Your task to perform on an android device: turn on priority inbox in the gmail app Image 0: 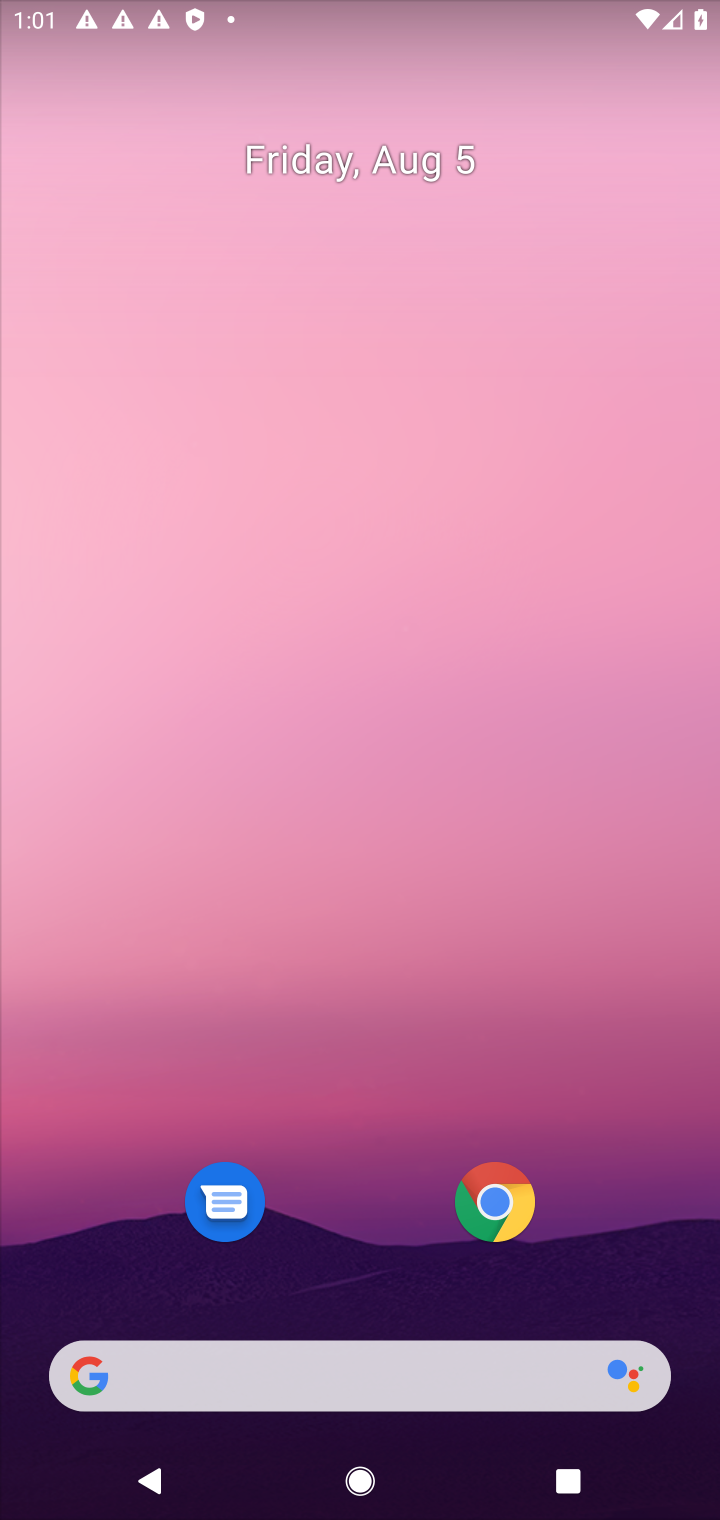
Step 0: drag from (308, 1125) to (406, 257)
Your task to perform on an android device: turn on priority inbox in the gmail app Image 1: 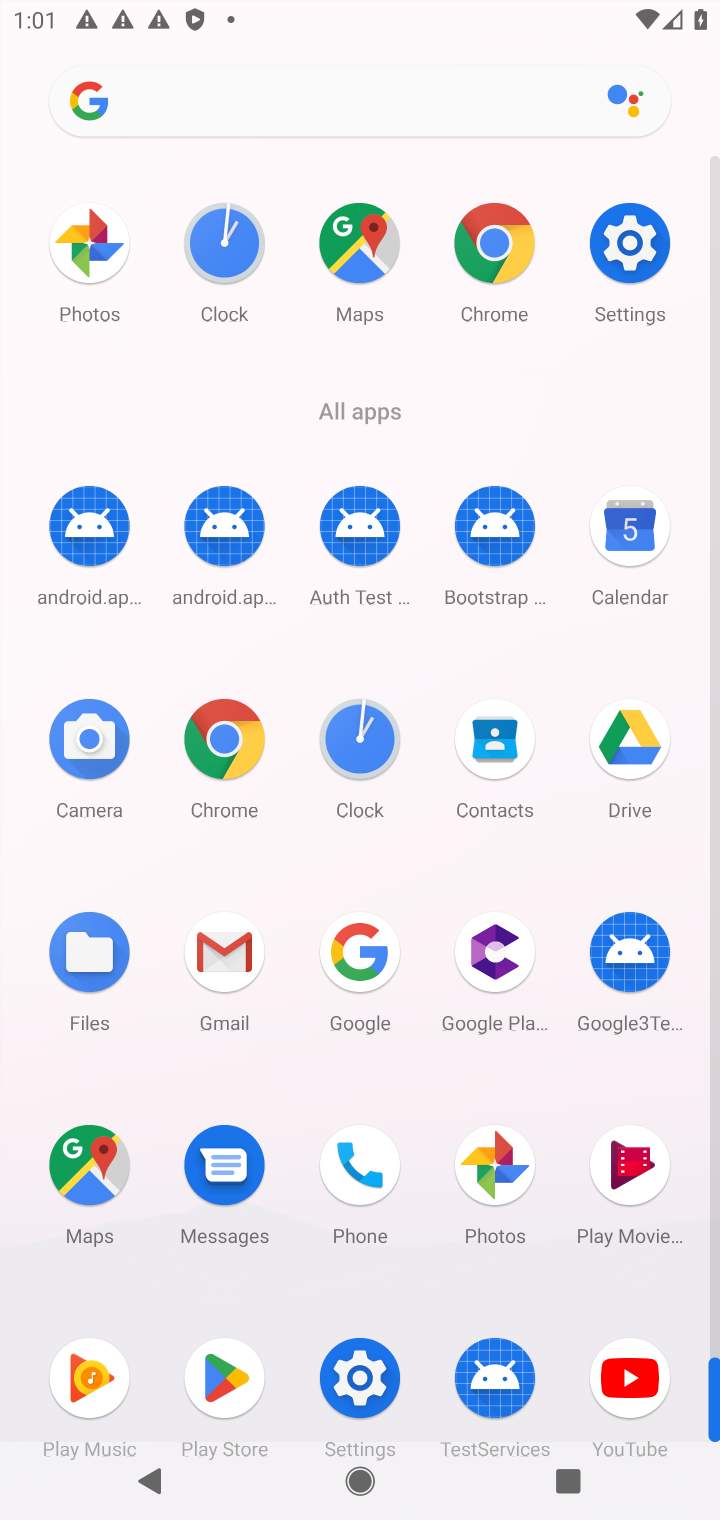
Step 1: click (234, 957)
Your task to perform on an android device: turn on priority inbox in the gmail app Image 2: 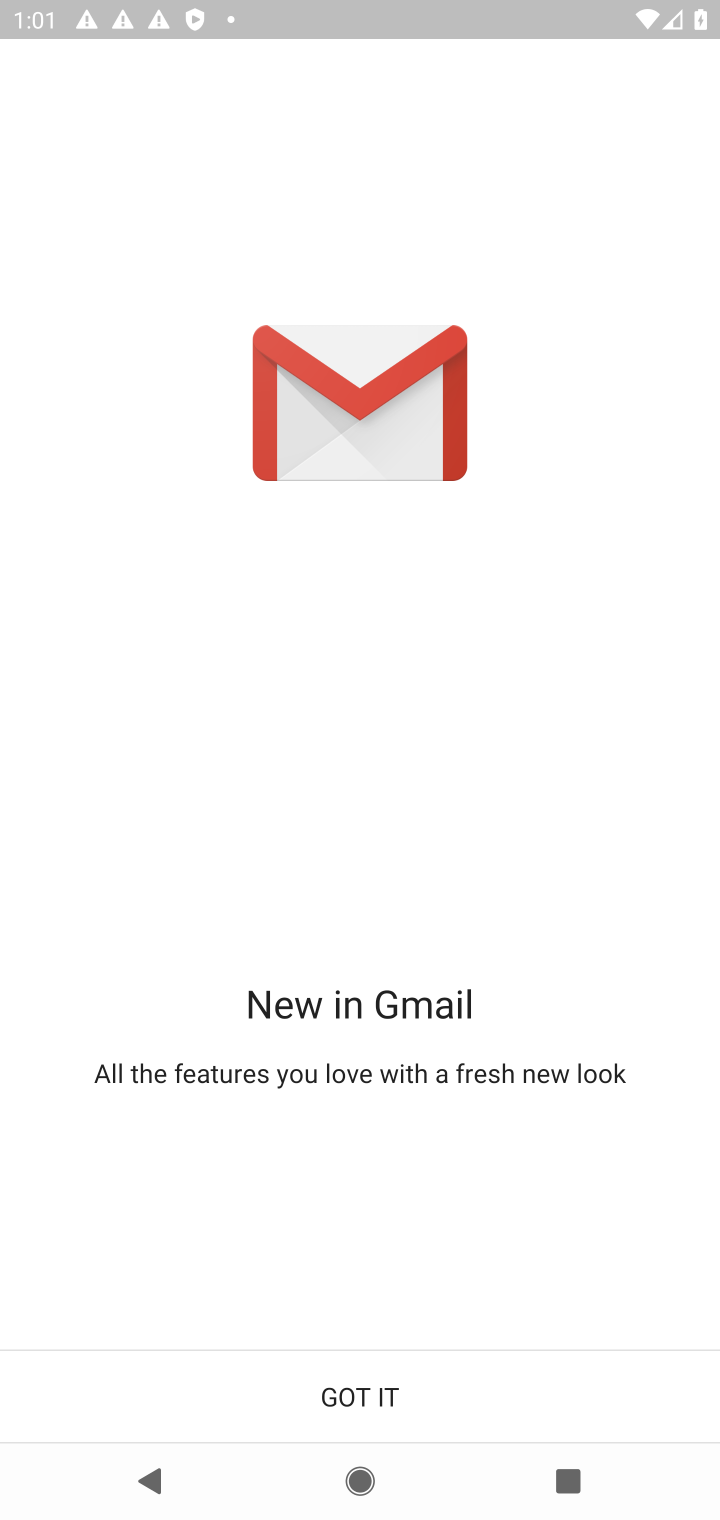
Step 2: click (395, 1379)
Your task to perform on an android device: turn on priority inbox in the gmail app Image 3: 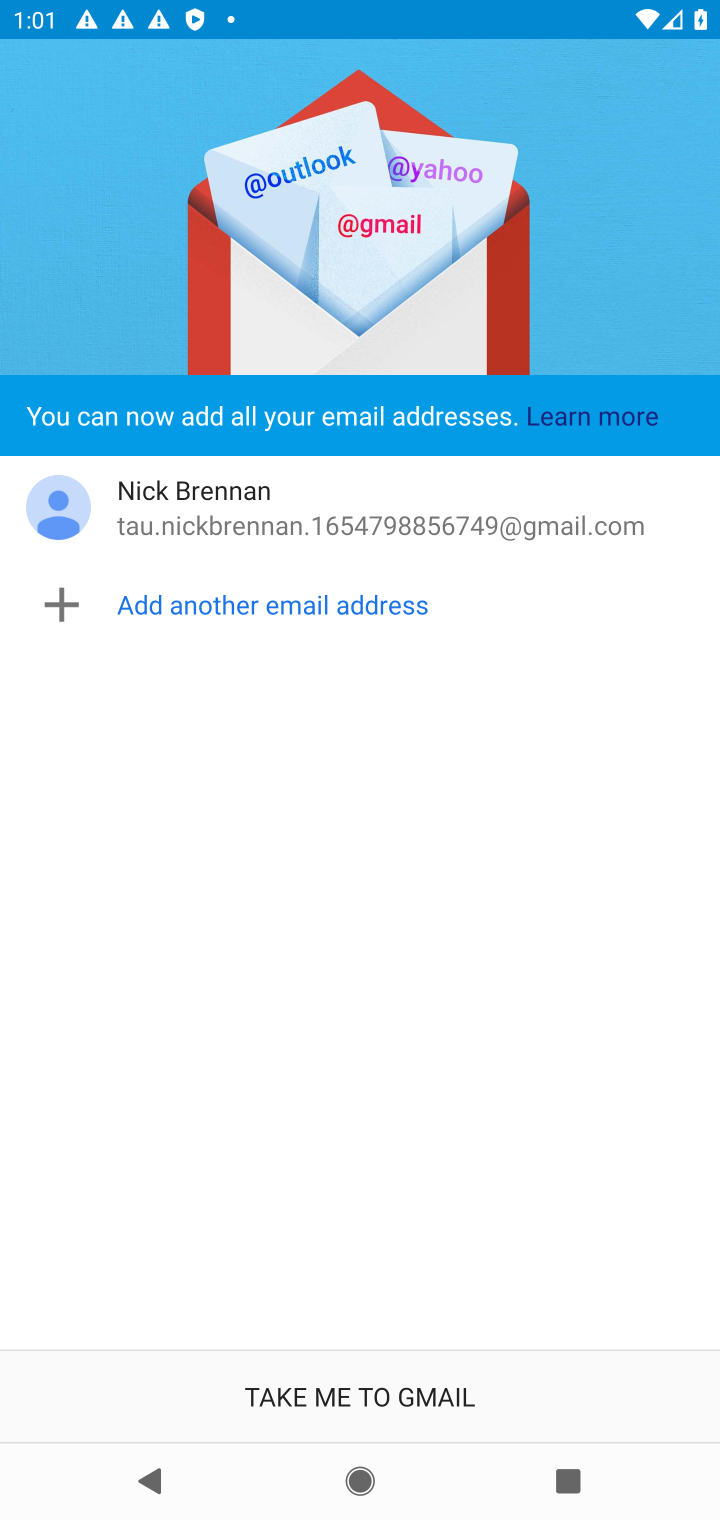
Step 3: click (392, 1383)
Your task to perform on an android device: turn on priority inbox in the gmail app Image 4: 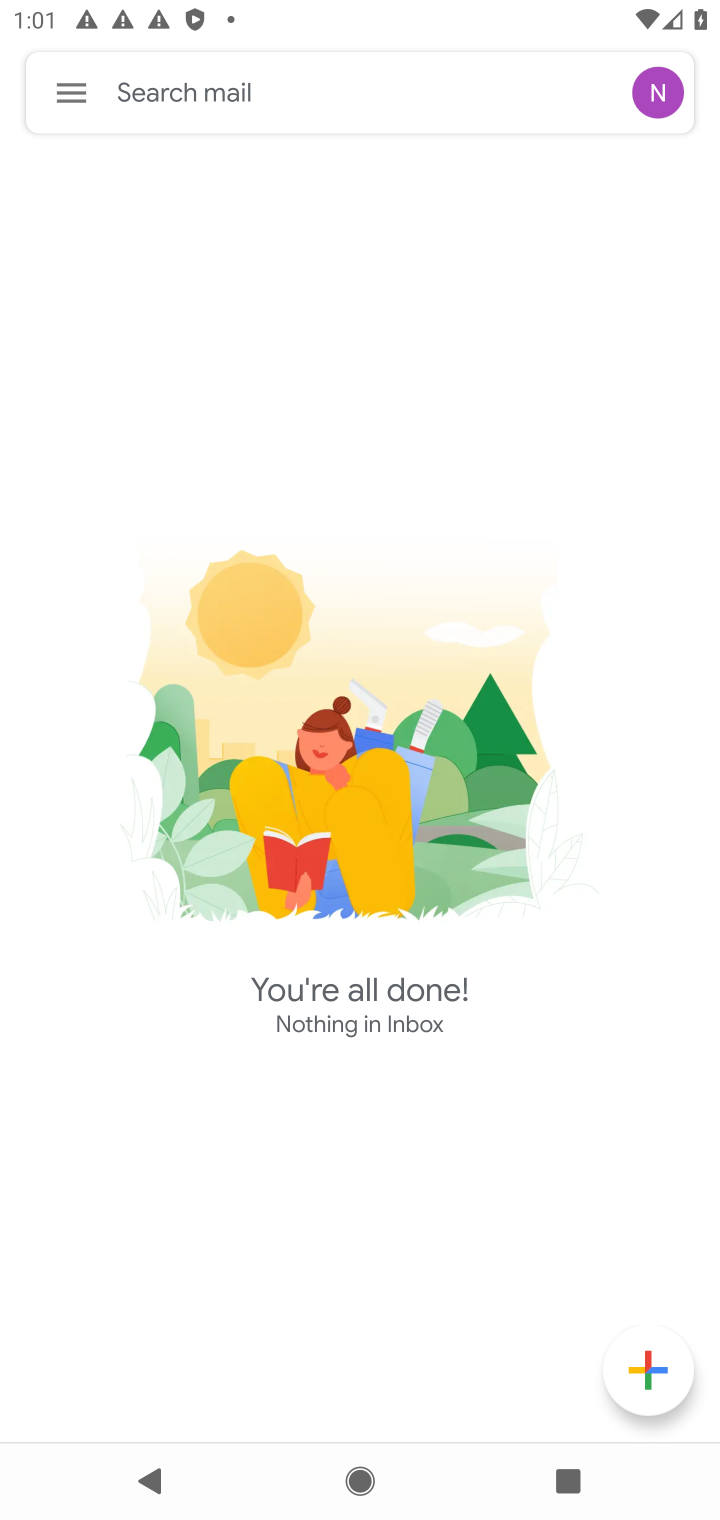
Step 4: click (80, 98)
Your task to perform on an android device: turn on priority inbox in the gmail app Image 5: 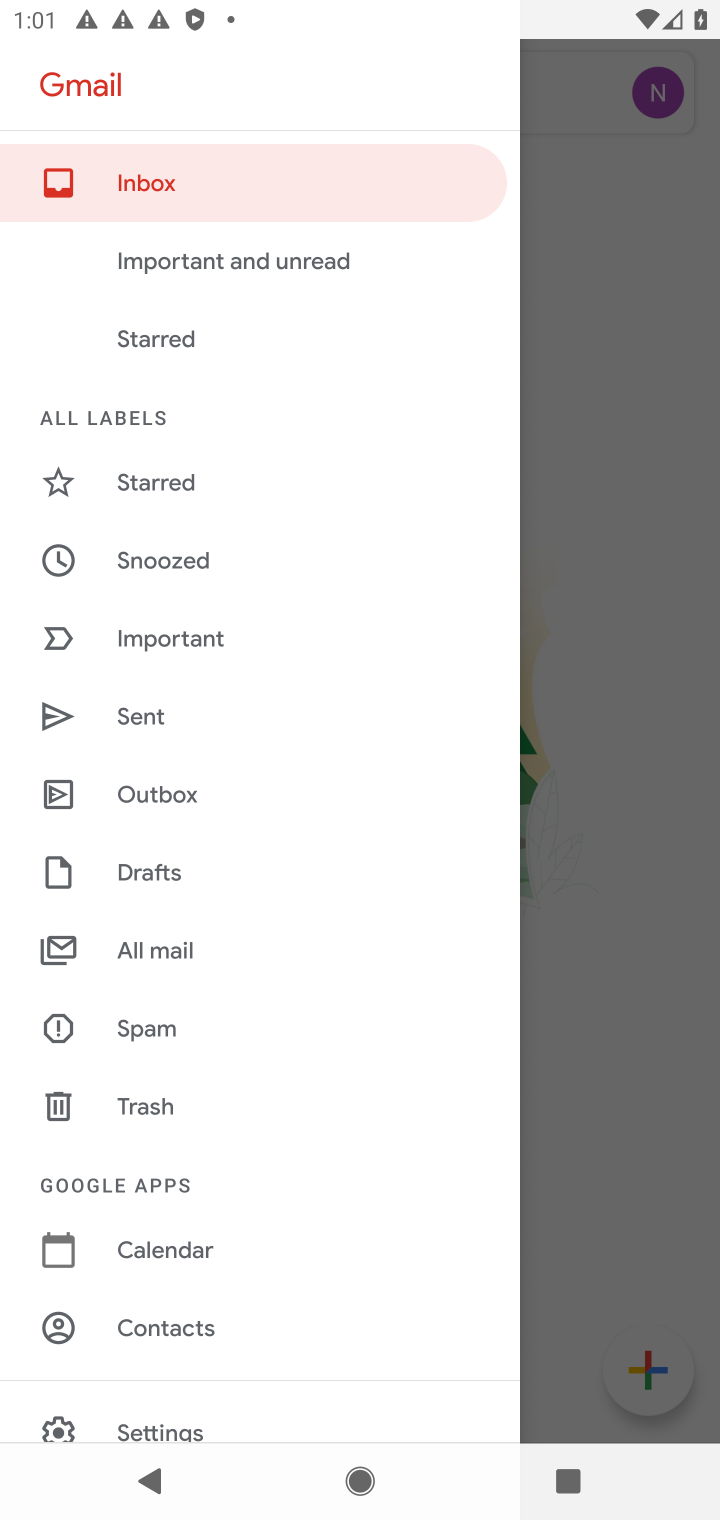
Step 5: click (163, 1419)
Your task to perform on an android device: turn on priority inbox in the gmail app Image 6: 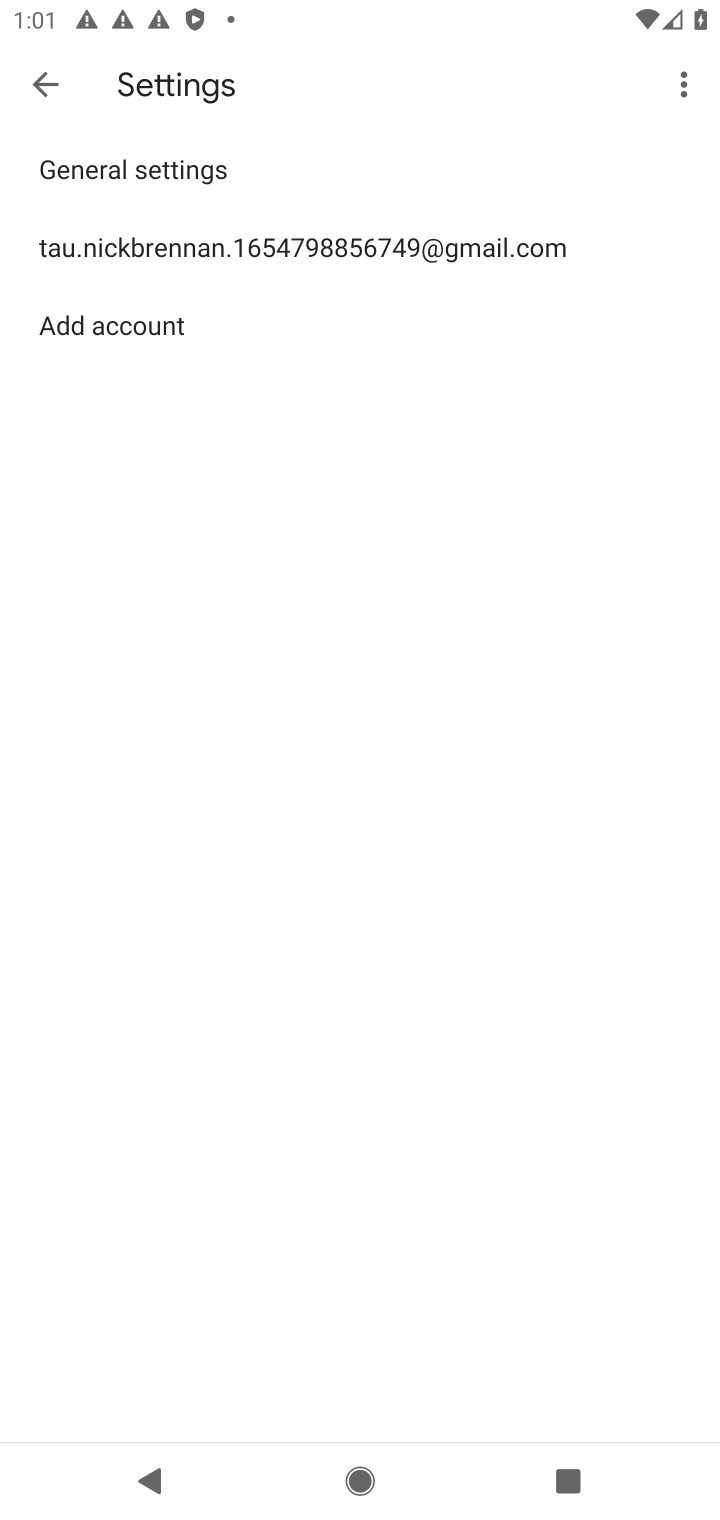
Step 6: click (404, 231)
Your task to perform on an android device: turn on priority inbox in the gmail app Image 7: 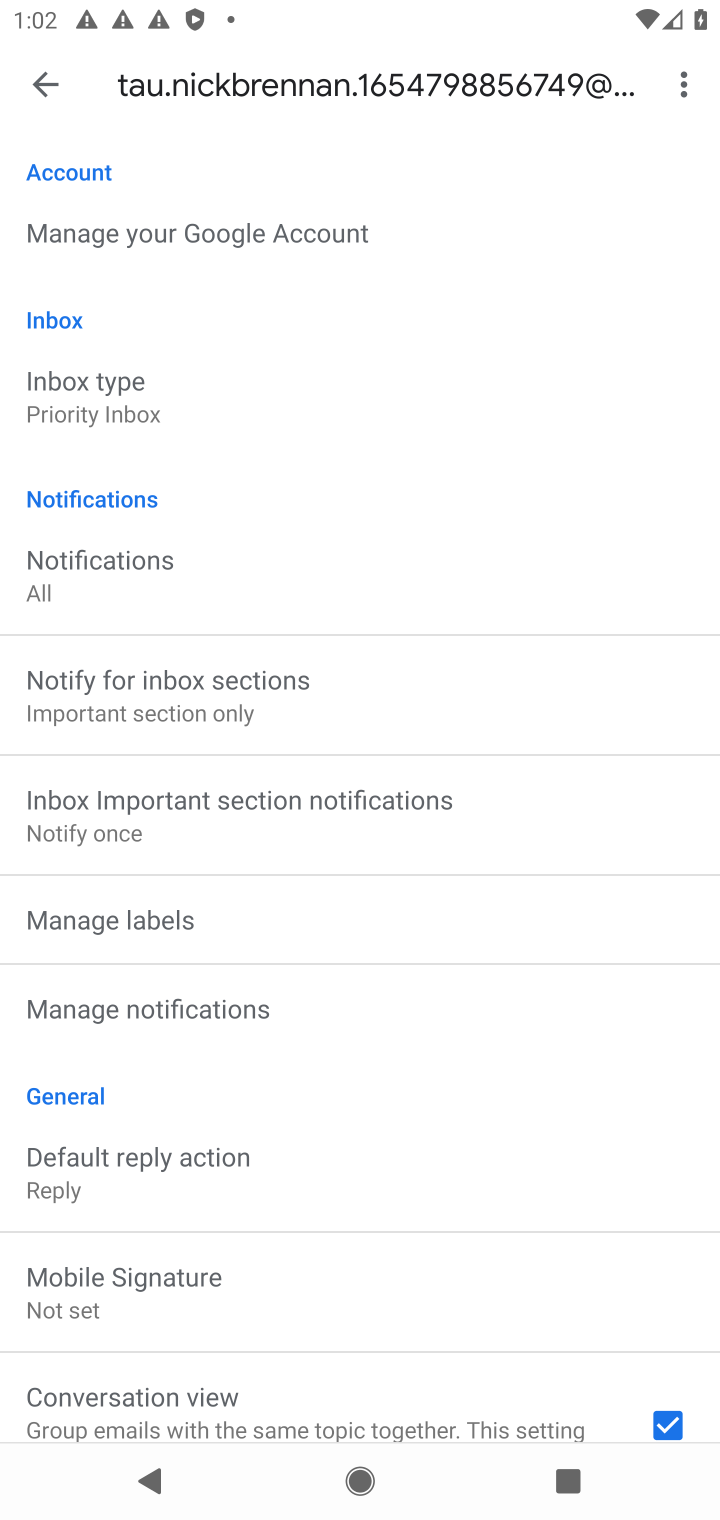
Step 7: click (140, 401)
Your task to perform on an android device: turn on priority inbox in the gmail app Image 8: 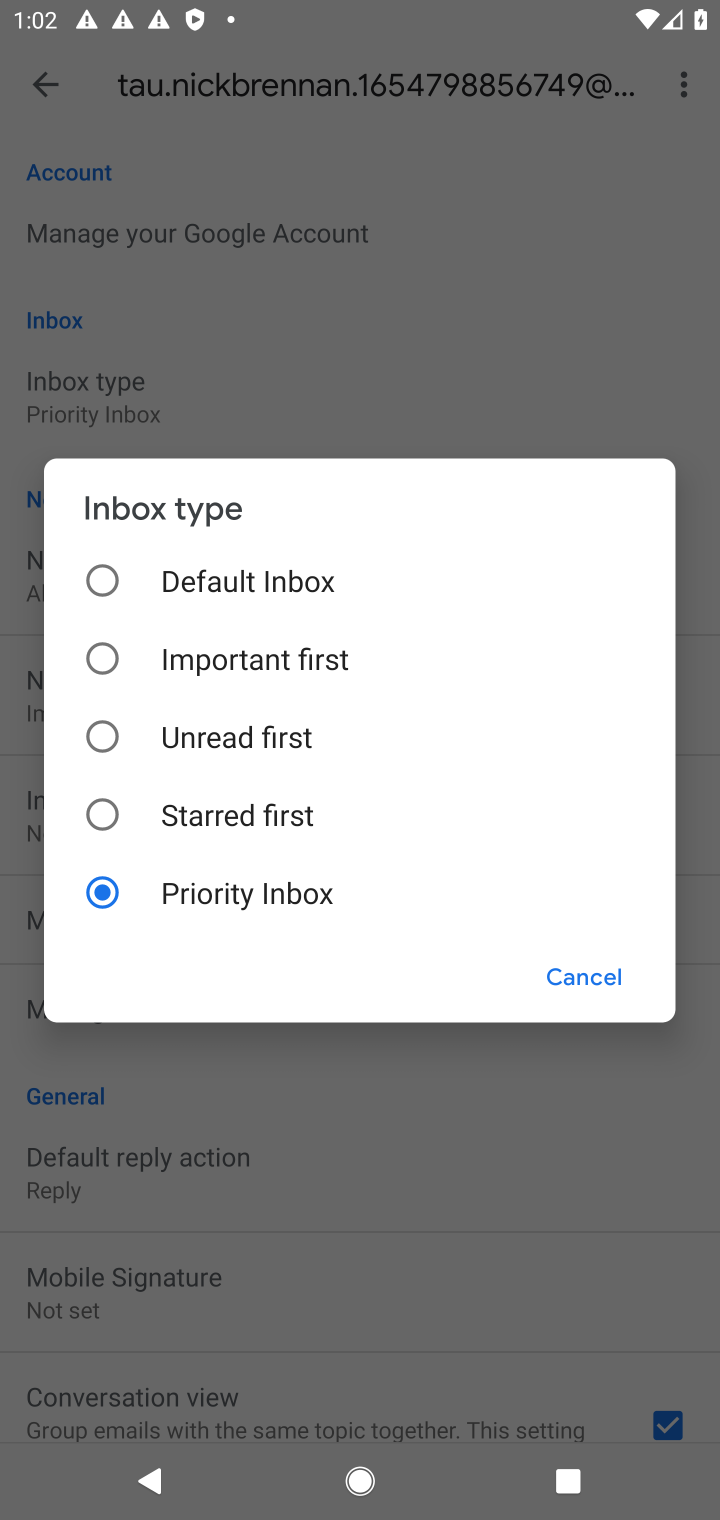
Step 8: task complete